Your task to perform on an android device: read, delete, or share a saved page in the chrome app Image 0: 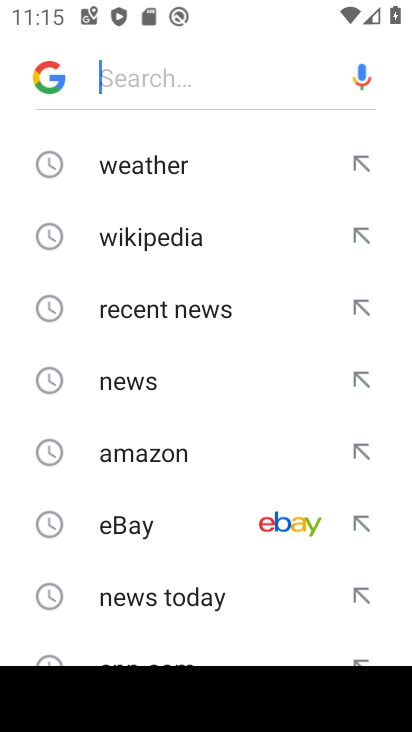
Step 0: press back button
Your task to perform on an android device: read, delete, or share a saved page in the chrome app Image 1: 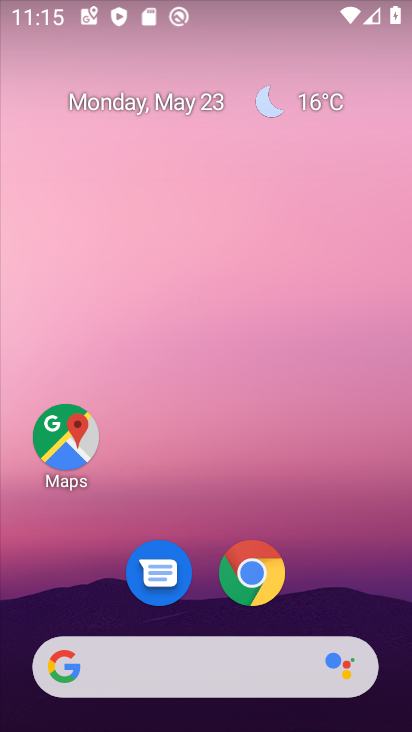
Step 1: click (250, 570)
Your task to perform on an android device: read, delete, or share a saved page in the chrome app Image 2: 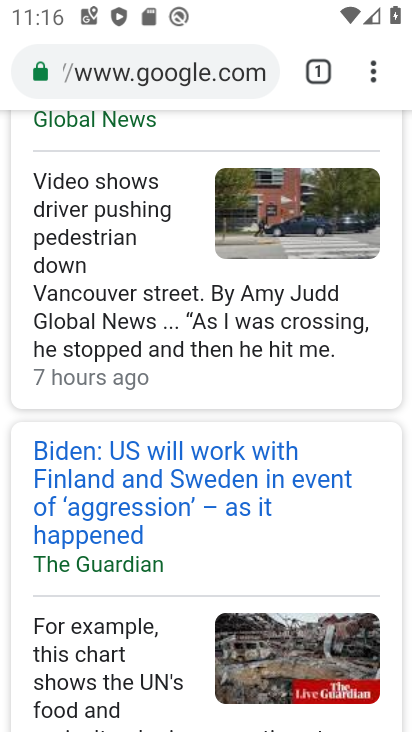
Step 2: task complete